Your task to perform on an android device: Play the last video I watched on Youtube Image 0: 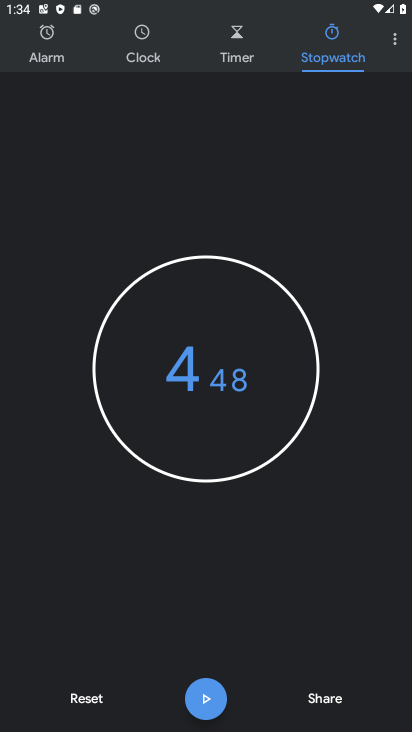
Step 0: press home button
Your task to perform on an android device: Play the last video I watched on Youtube Image 1: 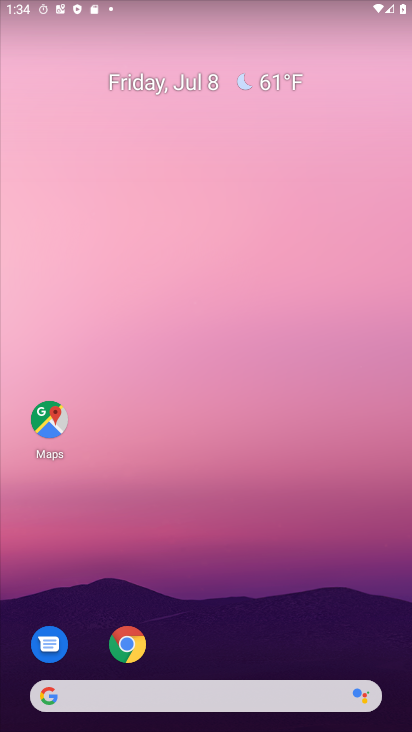
Step 1: drag from (203, 292) to (228, 58)
Your task to perform on an android device: Play the last video I watched on Youtube Image 2: 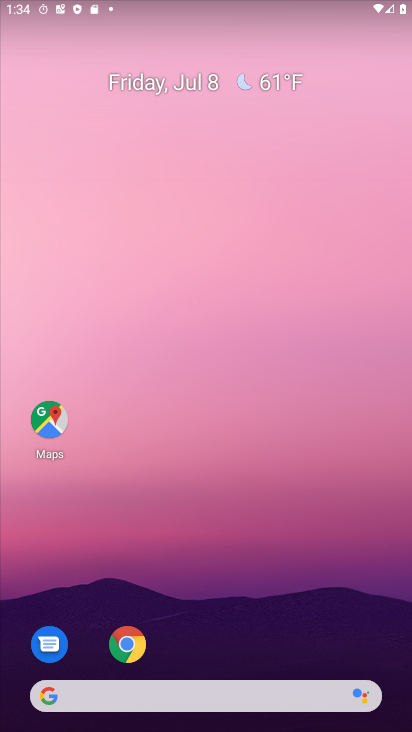
Step 2: drag from (268, 231) to (297, 22)
Your task to perform on an android device: Play the last video I watched on Youtube Image 3: 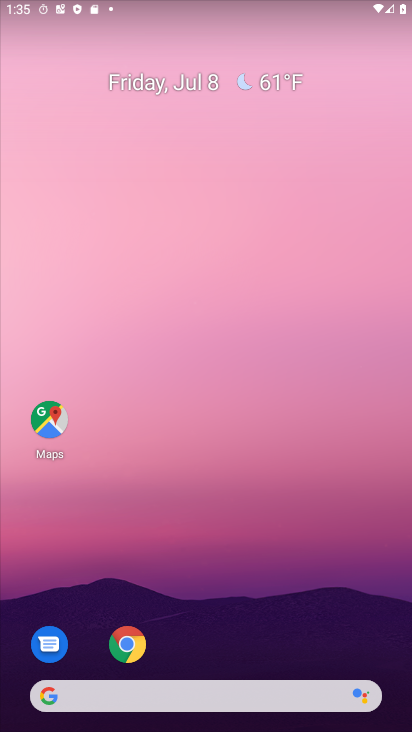
Step 3: drag from (204, 487) to (240, 41)
Your task to perform on an android device: Play the last video I watched on Youtube Image 4: 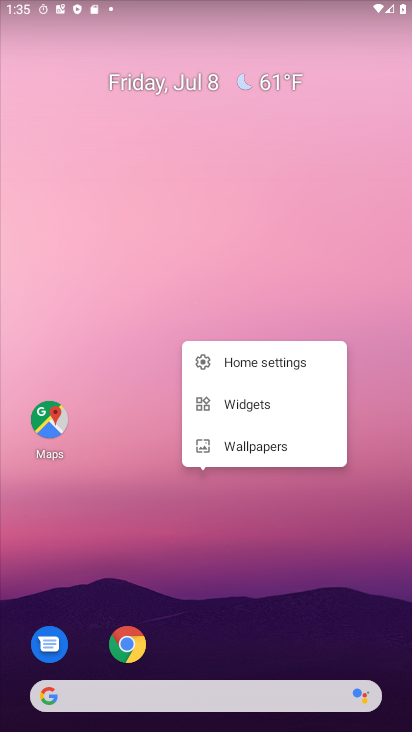
Step 4: click (209, 645)
Your task to perform on an android device: Play the last video I watched on Youtube Image 5: 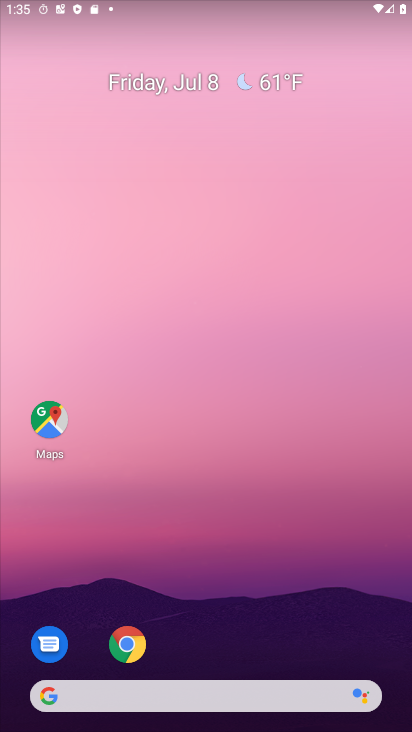
Step 5: click (209, 645)
Your task to perform on an android device: Play the last video I watched on Youtube Image 6: 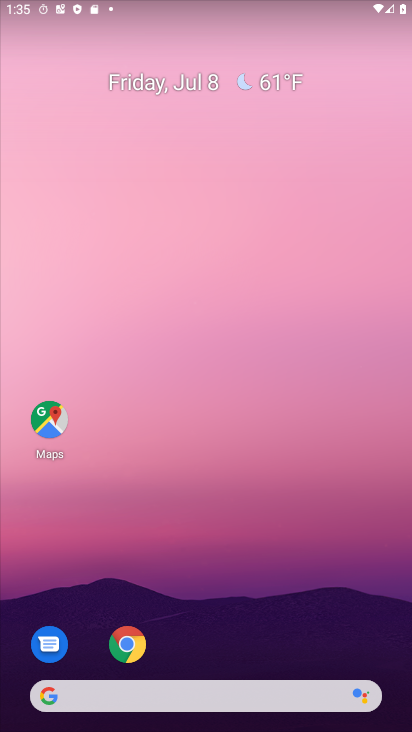
Step 6: click (263, 0)
Your task to perform on an android device: Play the last video I watched on Youtube Image 7: 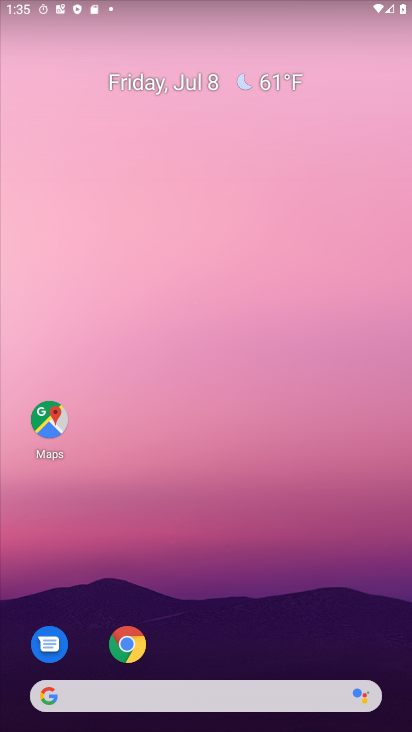
Step 7: click (229, 622)
Your task to perform on an android device: Play the last video I watched on Youtube Image 8: 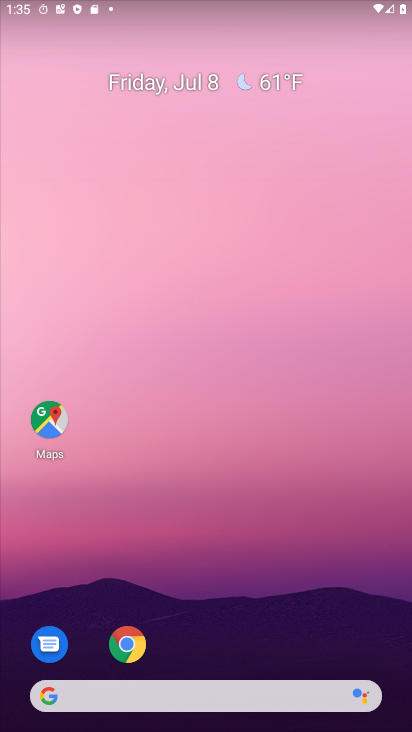
Step 8: click (227, 126)
Your task to perform on an android device: Play the last video I watched on Youtube Image 9: 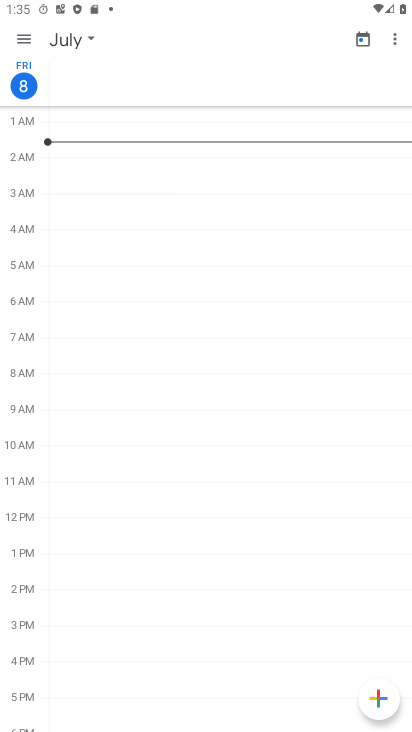
Step 9: press home button
Your task to perform on an android device: Play the last video I watched on Youtube Image 10: 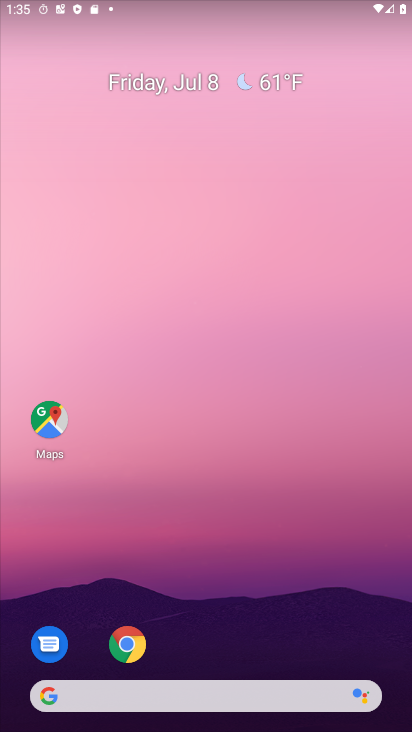
Step 10: drag from (232, 436) to (232, 32)
Your task to perform on an android device: Play the last video I watched on Youtube Image 11: 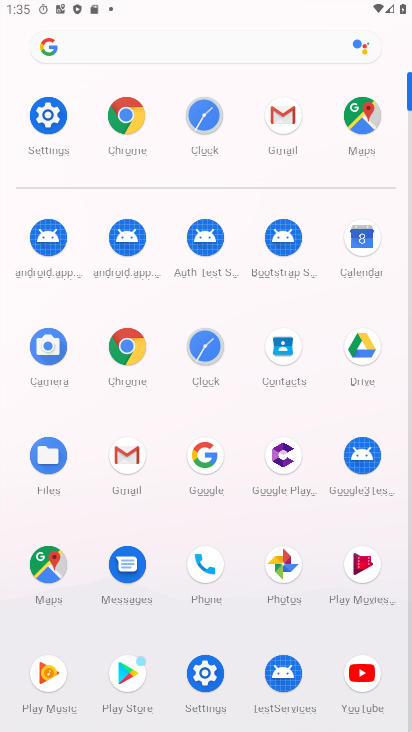
Step 11: click (356, 675)
Your task to perform on an android device: Play the last video I watched on Youtube Image 12: 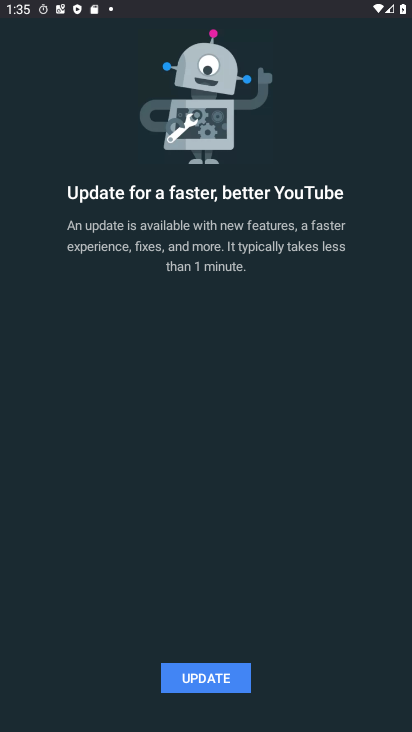
Step 12: click (210, 663)
Your task to perform on an android device: Play the last video I watched on Youtube Image 13: 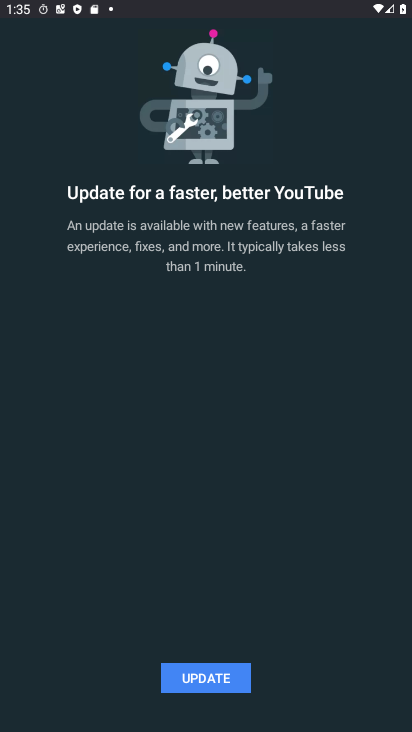
Step 13: click (206, 679)
Your task to perform on an android device: Play the last video I watched on Youtube Image 14: 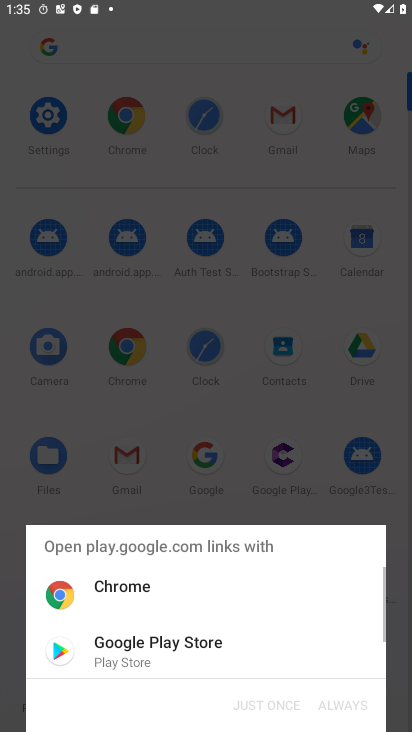
Step 14: click (156, 653)
Your task to perform on an android device: Play the last video I watched on Youtube Image 15: 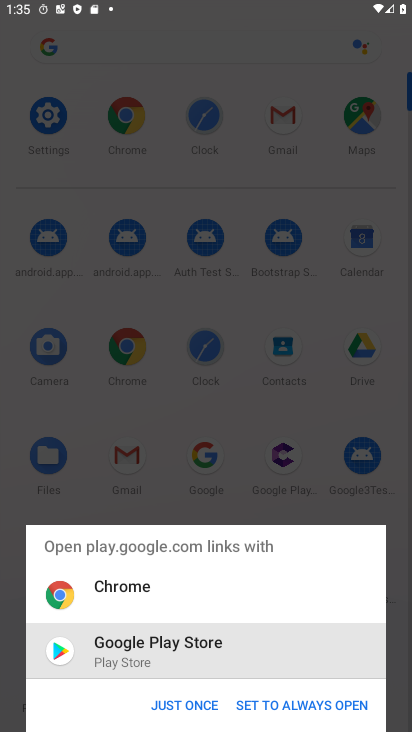
Step 15: click (304, 707)
Your task to perform on an android device: Play the last video I watched on Youtube Image 16: 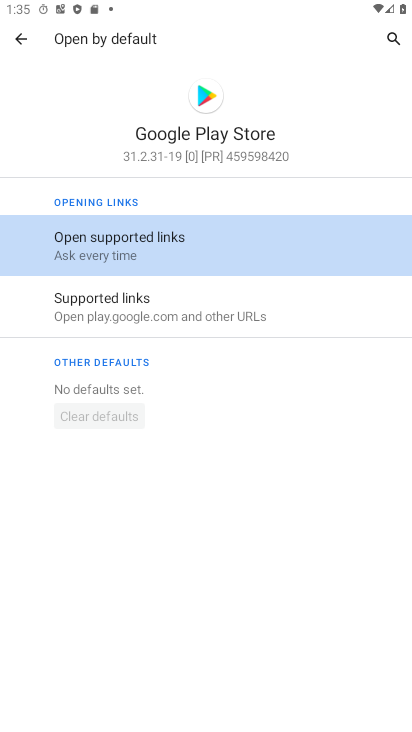
Step 16: click (70, 251)
Your task to perform on an android device: Play the last video I watched on Youtube Image 17: 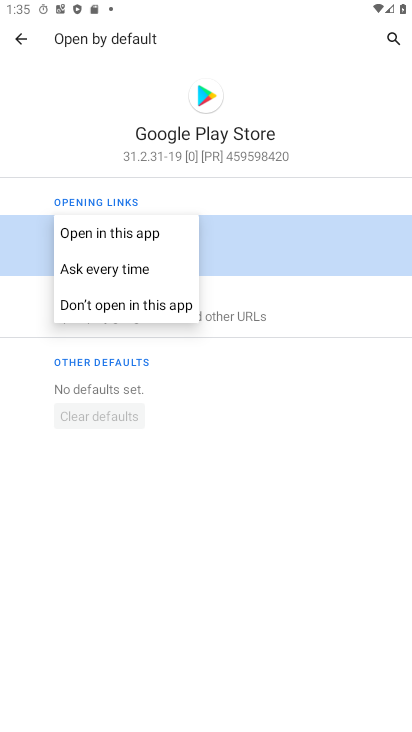
Step 17: click (105, 236)
Your task to perform on an android device: Play the last video I watched on Youtube Image 18: 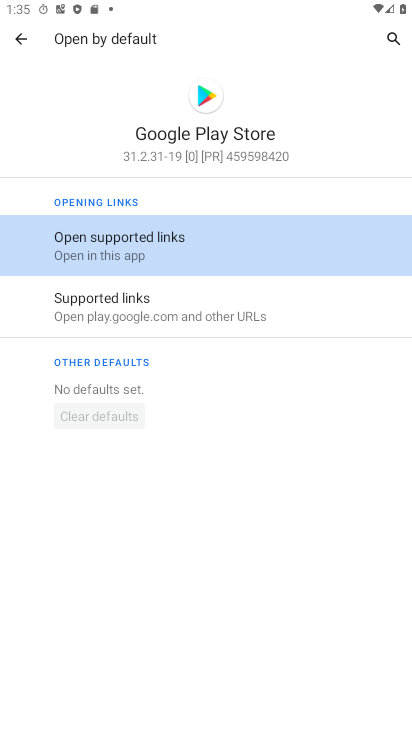
Step 18: click (20, 33)
Your task to perform on an android device: Play the last video I watched on Youtube Image 19: 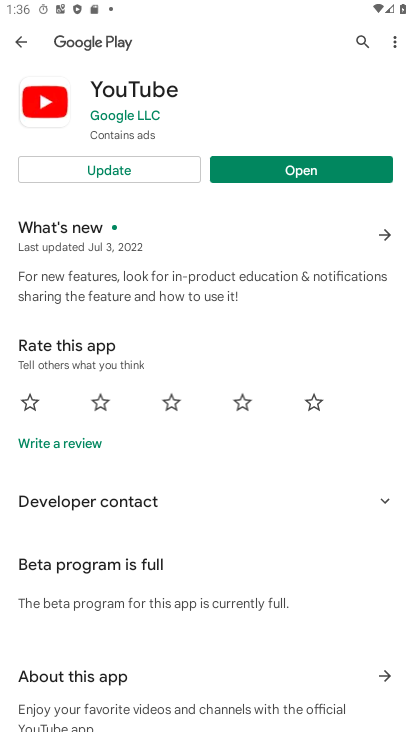
Step 19: click (115, 172)
Your task to perform on an android device: Play the last video I watched on Youtube Image 20: 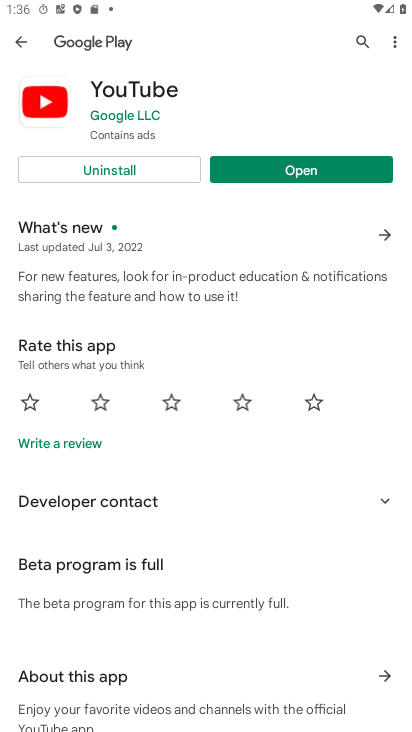
Step 20: click (279, 161)
Your task to perform on an android device: Play the last video I watched on Youtube Image 21: 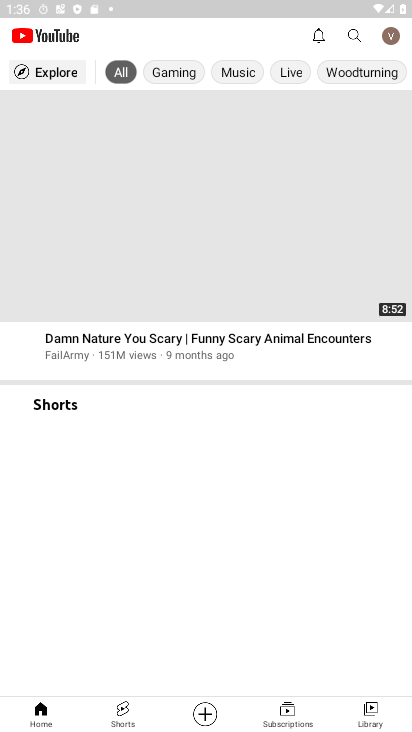
Step 21: click (364, 711)
Your task to perform on an android device: Play the last video I watched on Youtube Image 22: 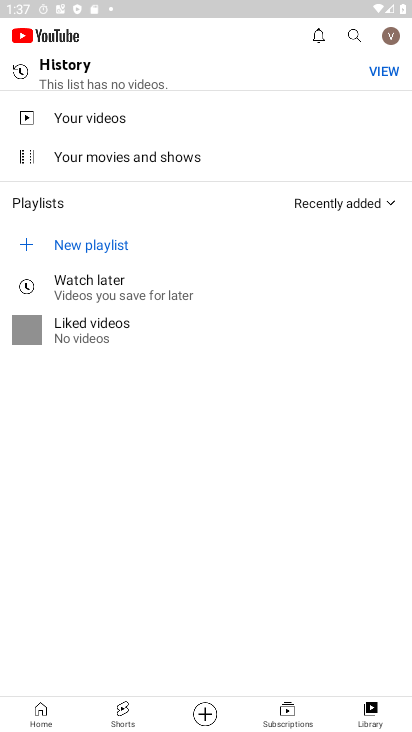
Step 22: task complete